Your task to perform on an android device: open sync settings in chrome Image 0: 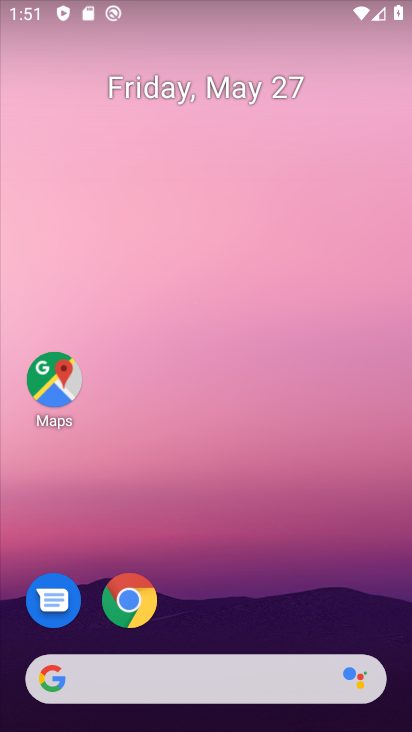
Step 0: drag from (170, 381) to (138, 17)
Your task to perform on an android device: open sync settings in chrome Image 1: 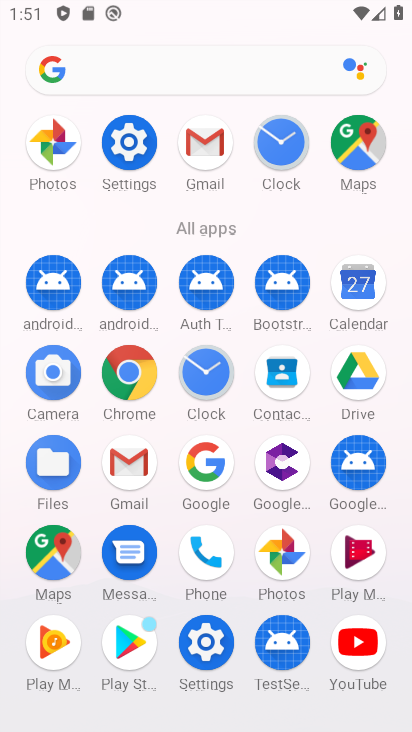
Step 1: drag from (12, 567) to (12, 224)
Your task to perform on an android device: open sync settings in chrome Image 2: 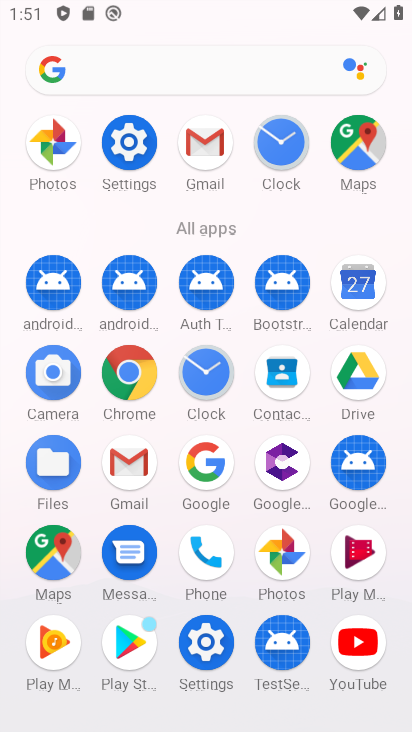
Step 2: click (128, 367)
Your task to perform on an android device: open sync settings in chrome Image 3: 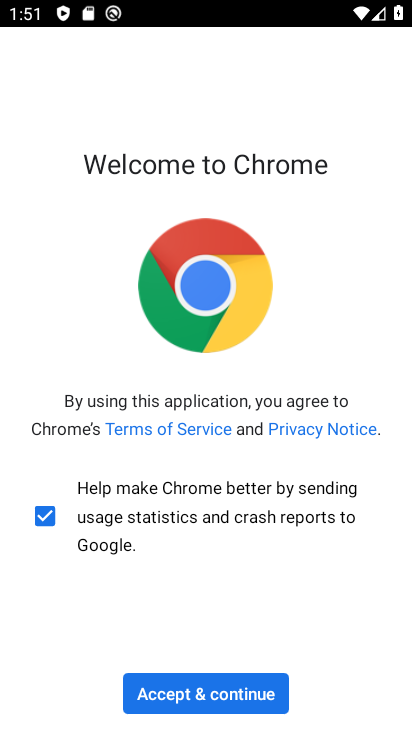
Step 3: click (192, 685)
Your task to perform on an android device: open sync settings in chrome Image 4: 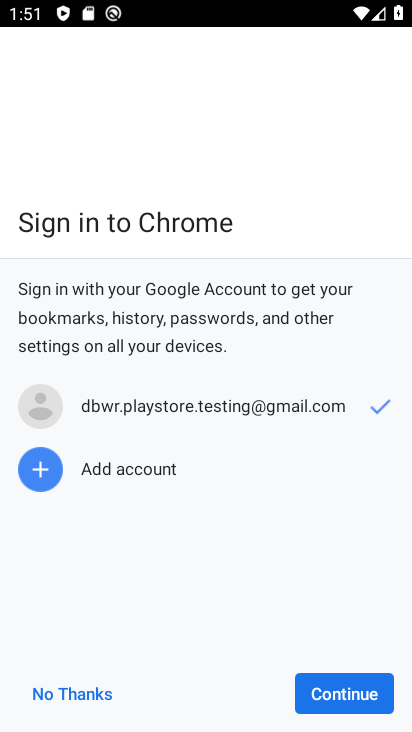
Step 4: click (329, 701)
Your task to perform on an android device: open sync settings in chrome Image 5: 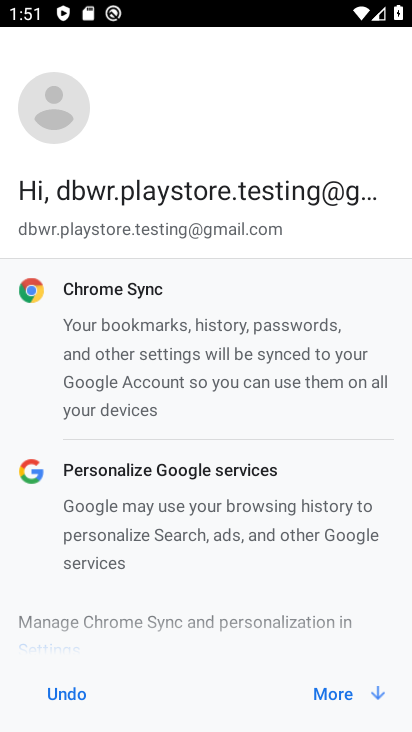
Step 5: click (328, 688)
Your task to perform on an android device: open sync settings in chrome Image 6: 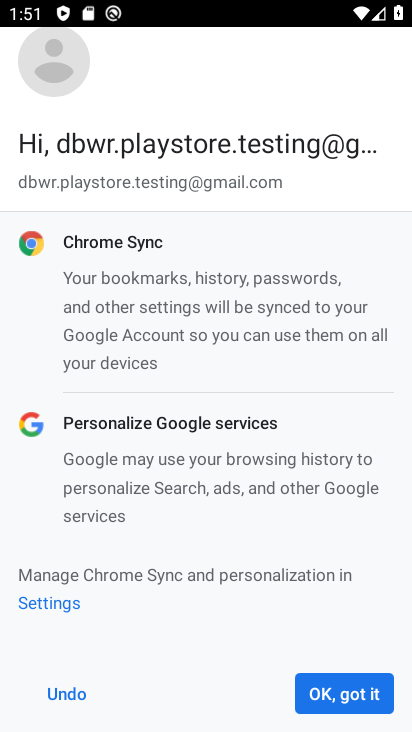
Step 6: click (328, 688)
Your task to perform on an android device: open sync settings in chrome Image 7: 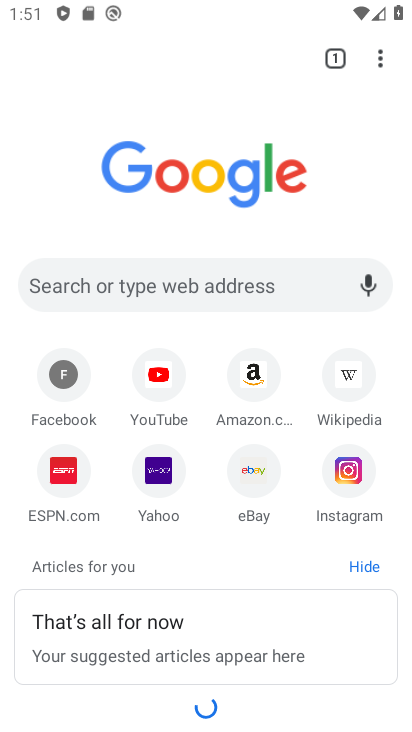
Step 7: drag from (374, 57) to (177, 476)
Your task to perform on an android device: open sync settings in chrome Image 8: 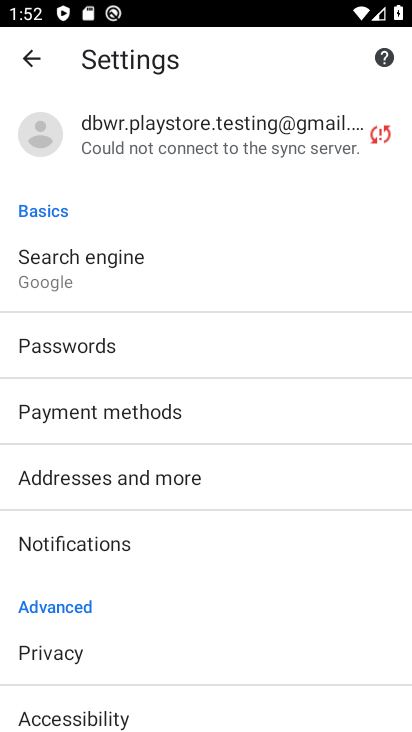
Step 8: click (186, 131)
Your task to perform on an android device: open sync settings in chrome Image 9: 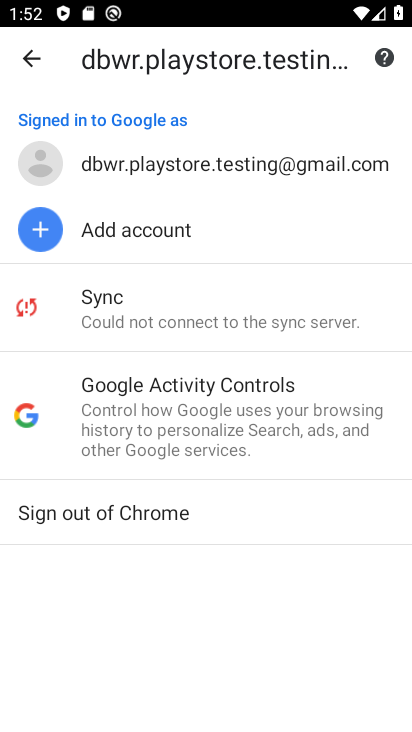
Step 9: click (179, 306)
Your task to perform on an android device: open sync settings in chrome Image 10: 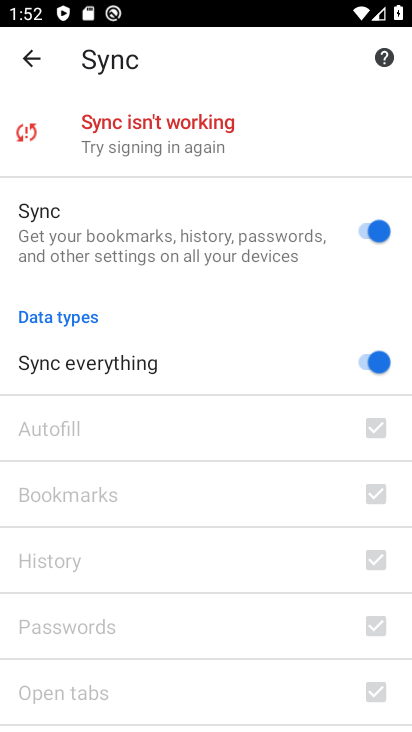
Step 10: task complete